Your task to perform on an android device: turn off translation in the chrome app Image 0: 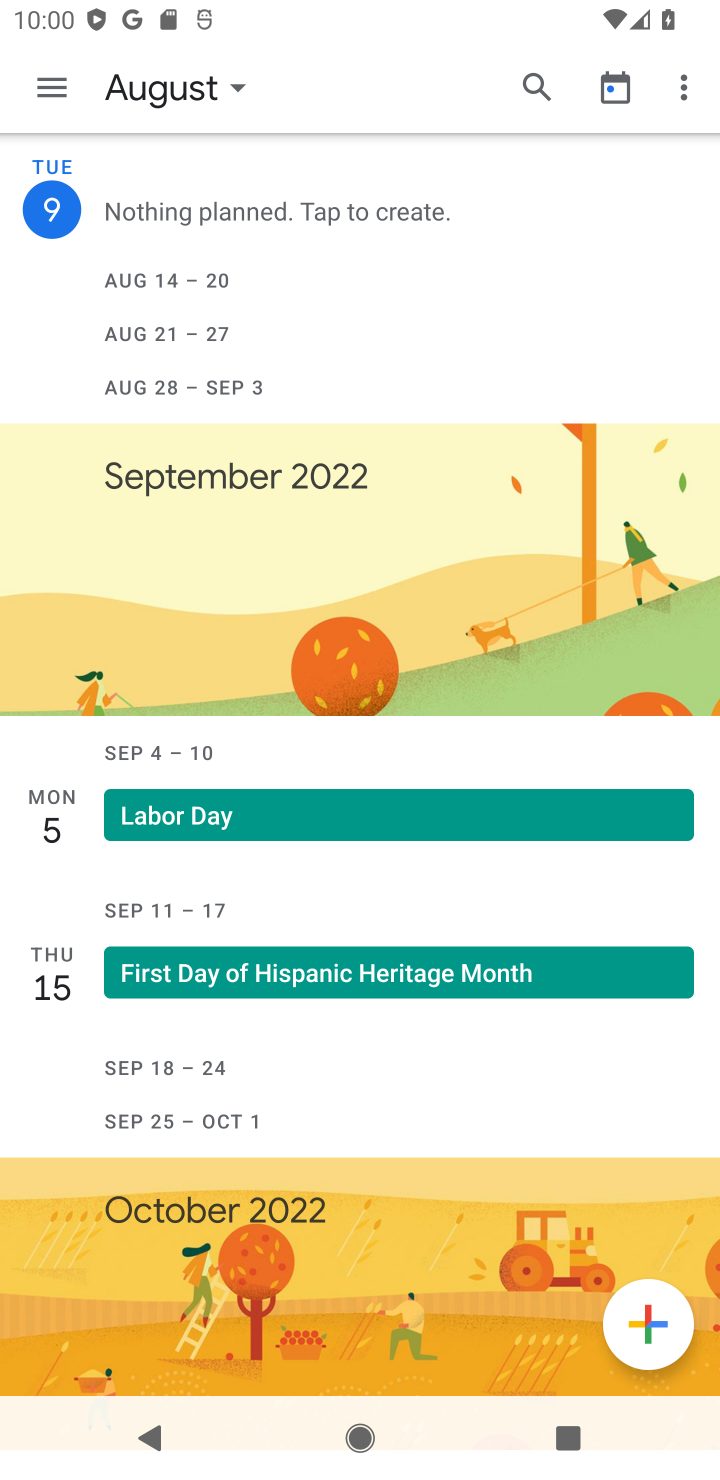
Step 0: press home button
Your task to perform on an android device: turn off translation in the chrome app Image 1: 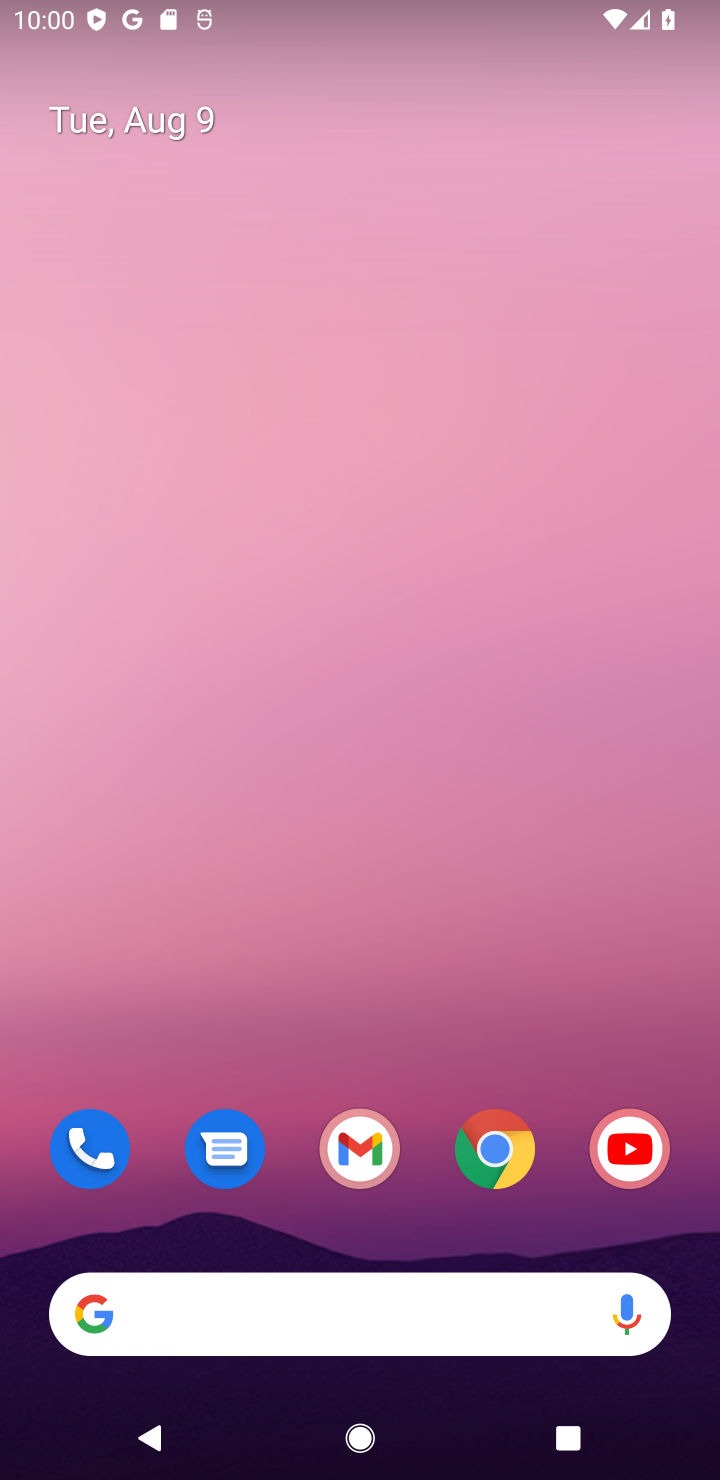
Step 1: click (515, 1154)
Your task to perform on an android device: turn off translation in the chrome app Image 2: 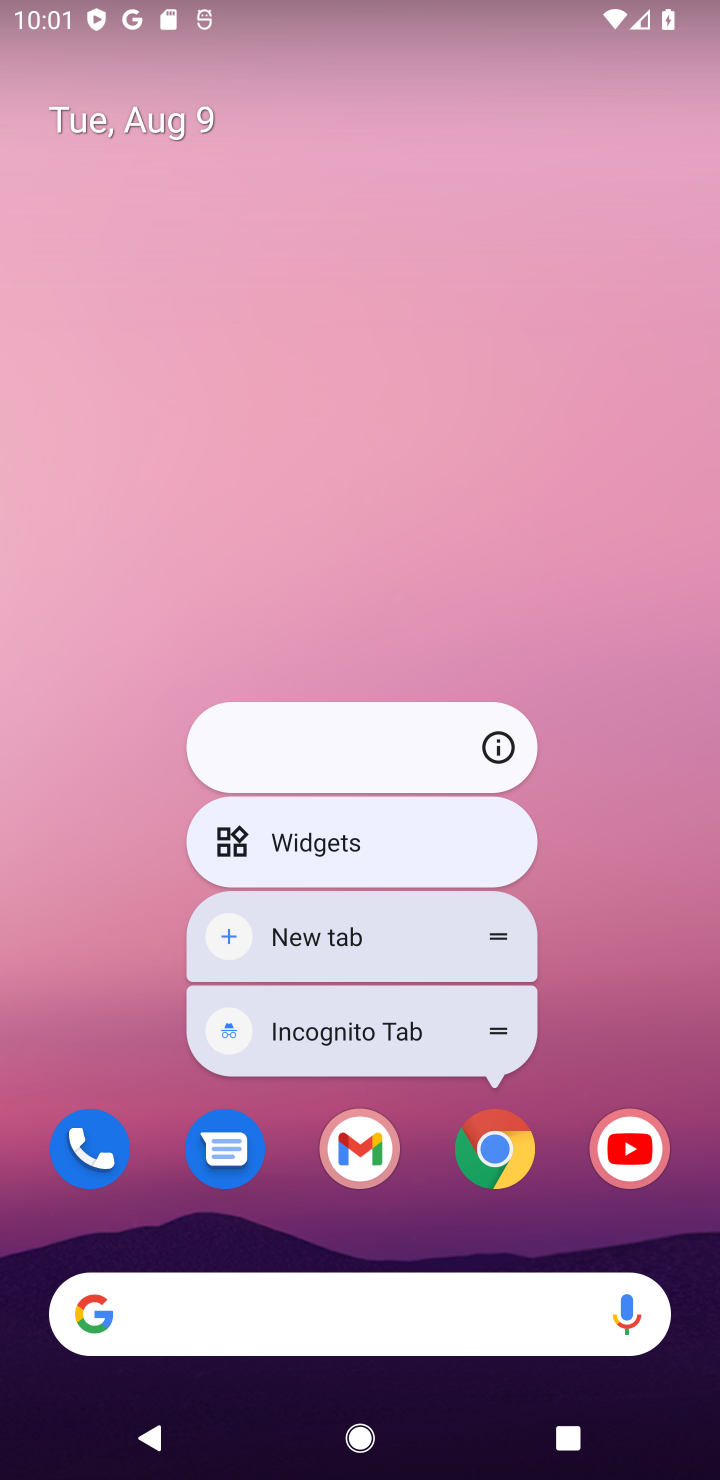
Step 2: click (510, 1170)
Your task to perform on an android device: turn off translation in the chrome app Image 3: 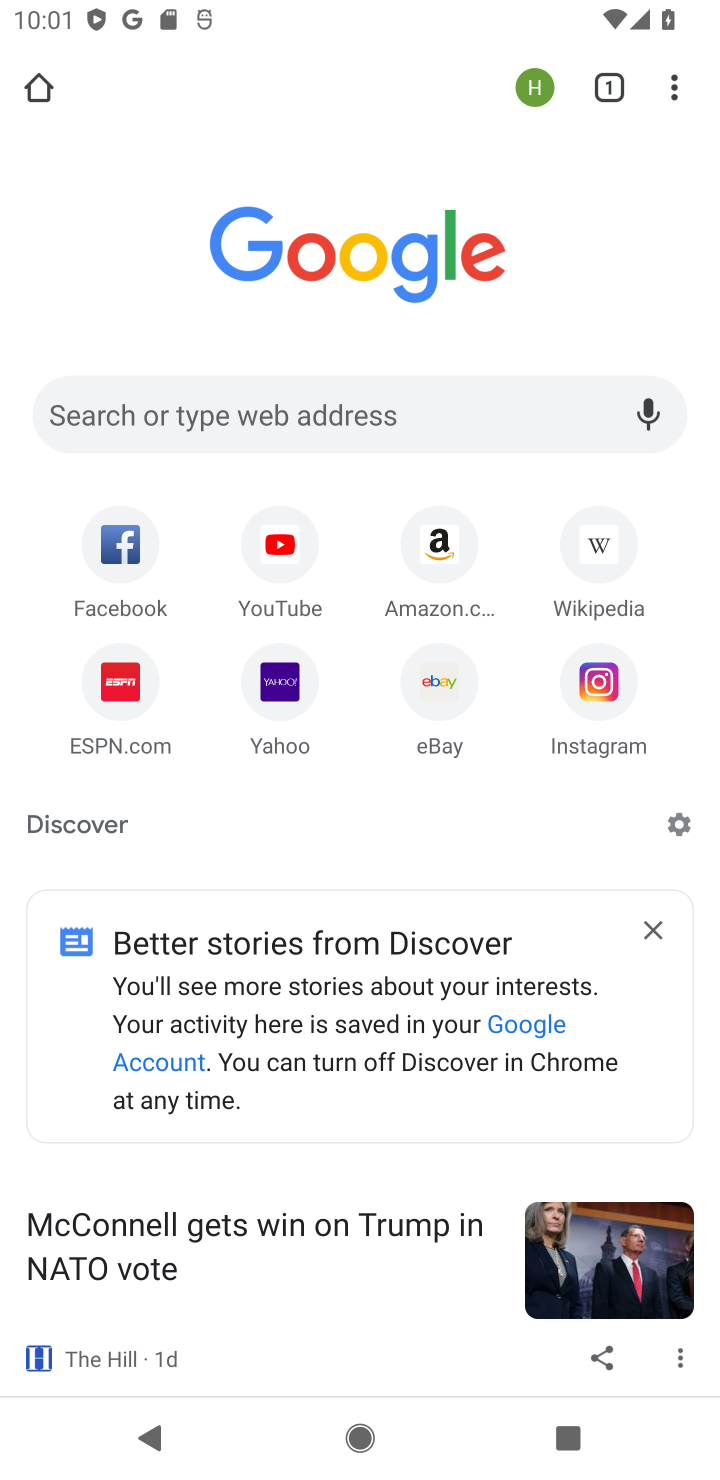
Step 3: click (655, 79)
Your task to perform on an android device: turn off translation in the chrome app Image 4: 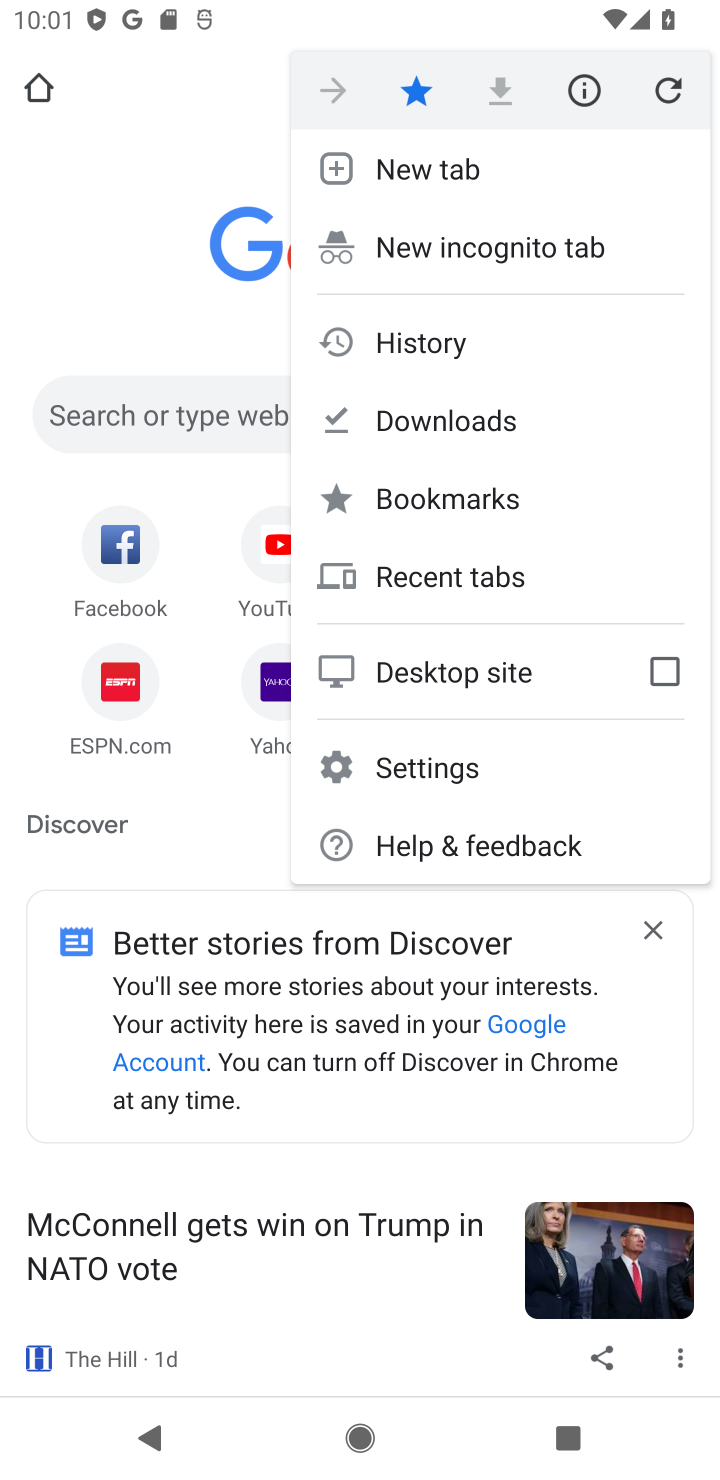
Step 4: click (453, 767)
Your task to perform on an android device: turn off translation in the chrome app Image 5: 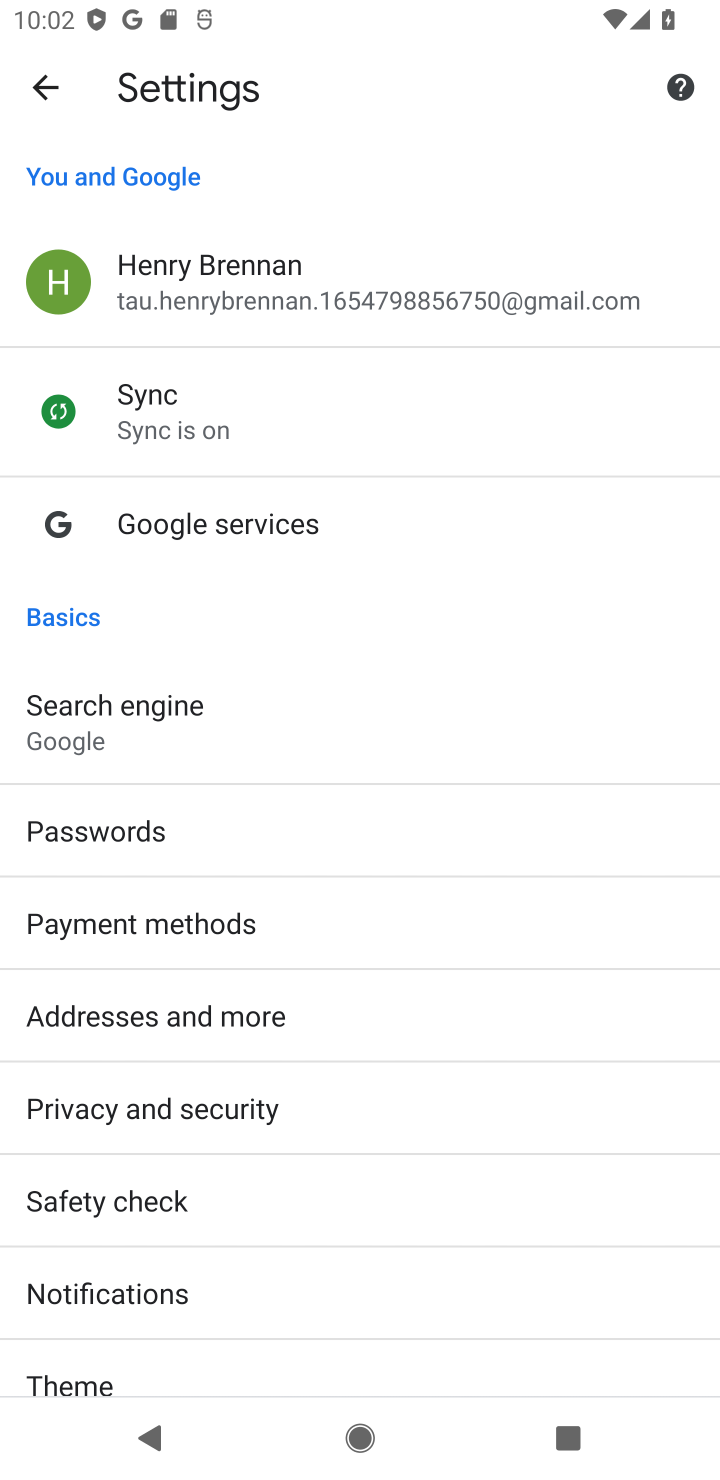
Step 5: drag from (591, 1156) to (513, 395)
Your task to perform on an android device: turn off translation in the chrome app Image 6: 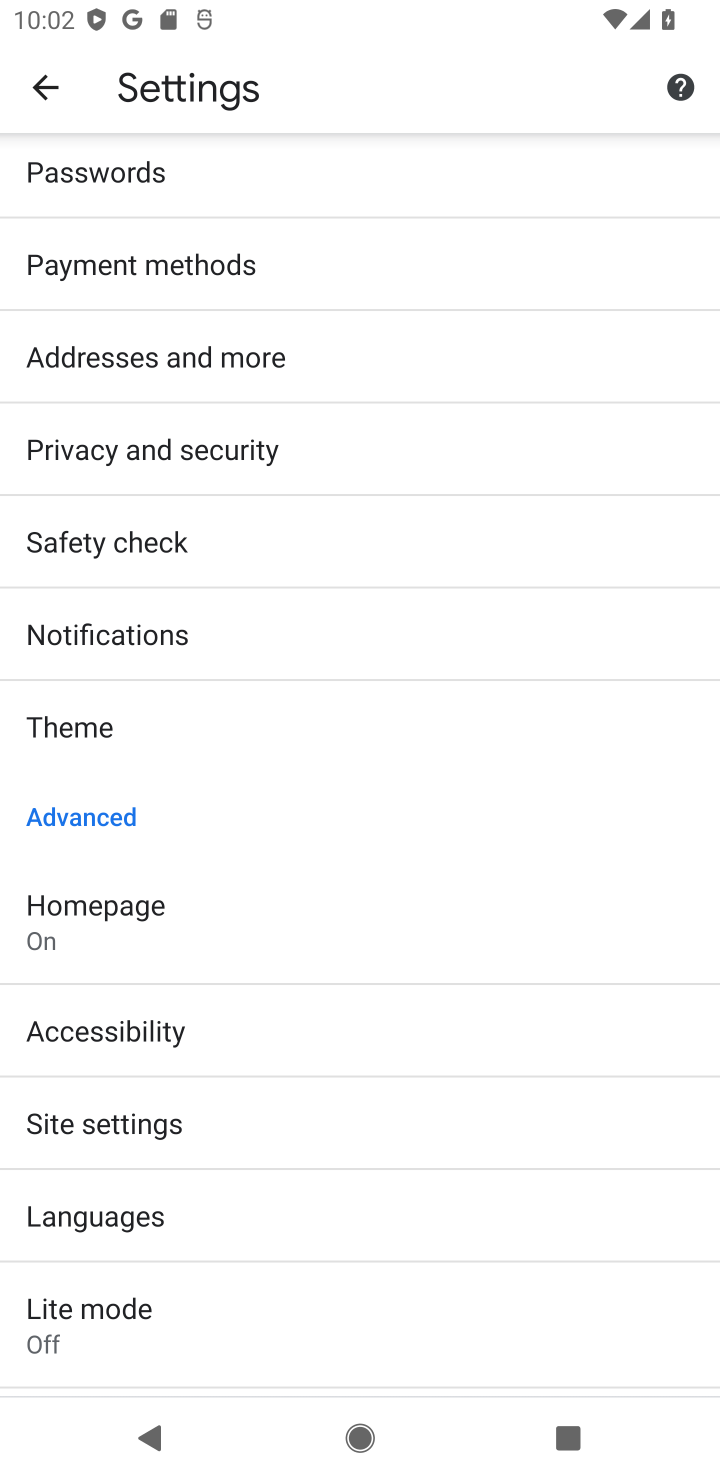
Step 6: click (89, 1226)
Your task to perform on an android device: turn off translation in the chrome app Image 7: 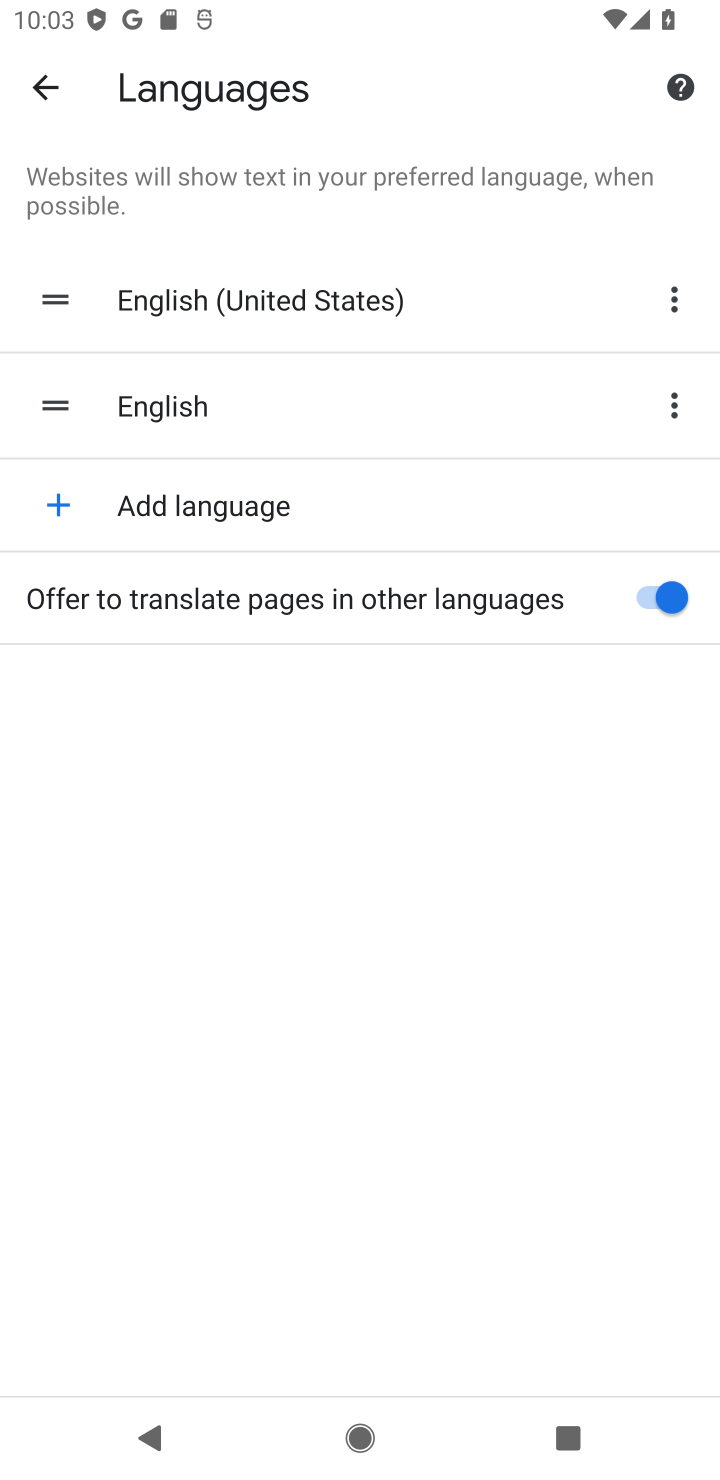
Step 7: click (673, 594)
Your task to perform on an android device: turn off translation in the chrome app Image 8: 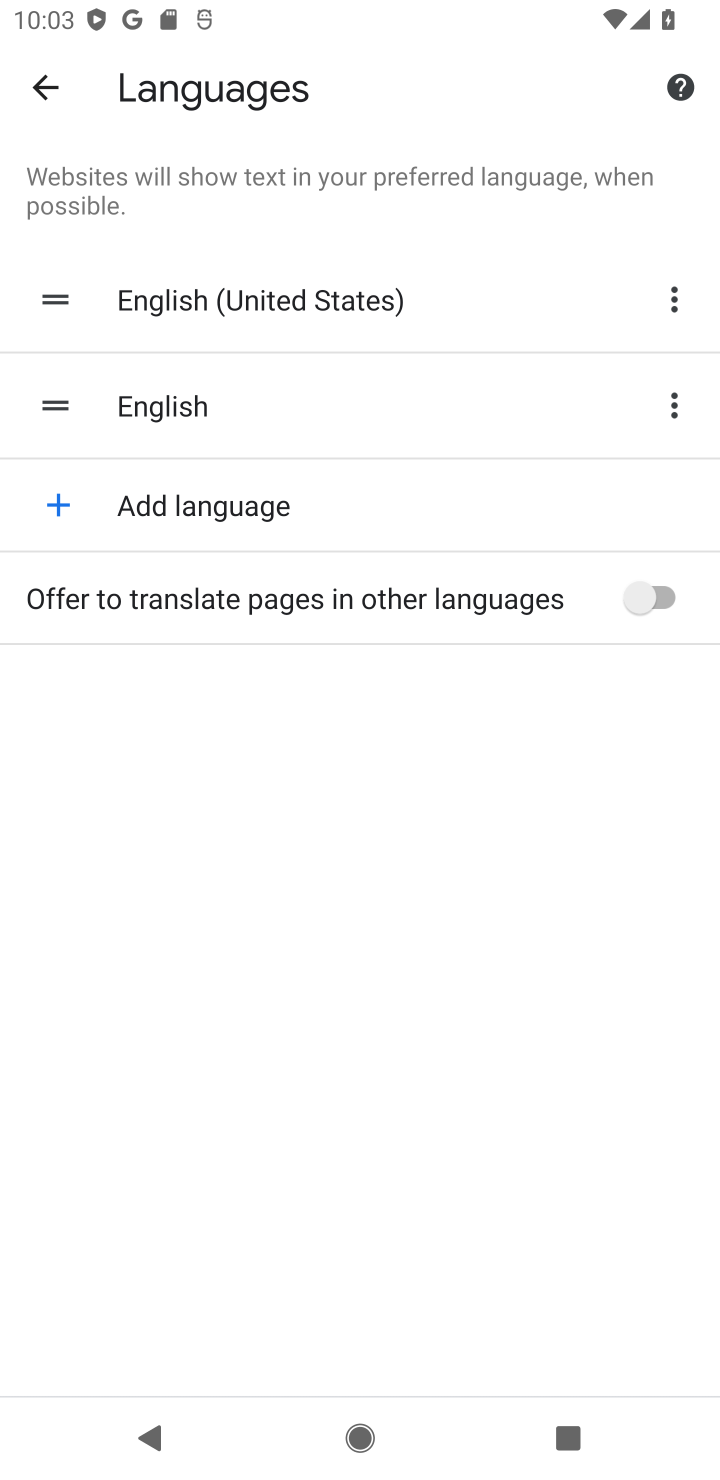
Step 8: task complete